Your task to perform on an android device: Go to privacy settings Image 0: 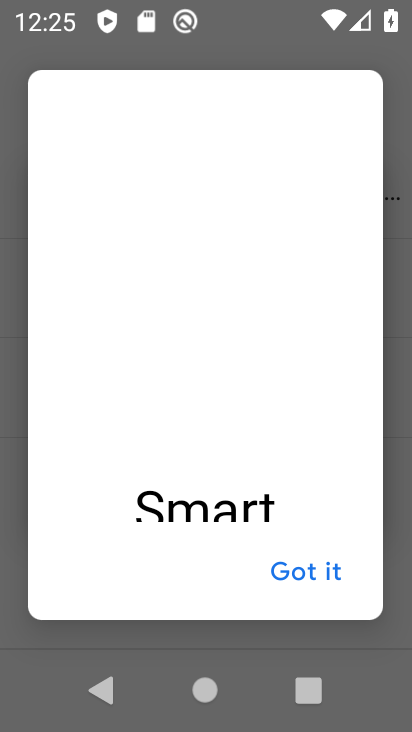
Step 0: click (303, 473)
Your task to perform on an android device: Go to privacy settings Image 1: 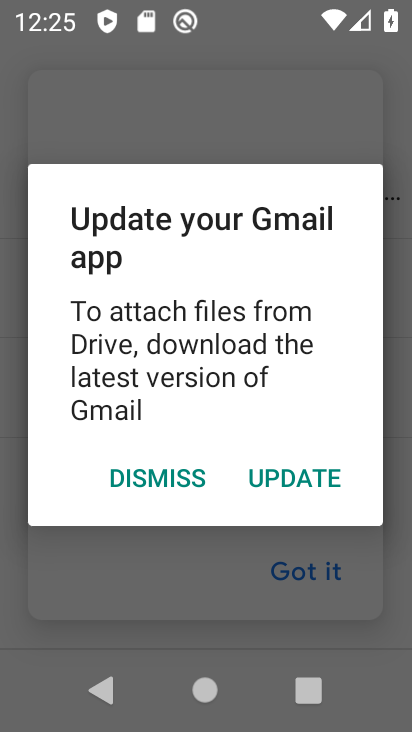
Step 1: press back button
Your task to perform on an android device: Go to privacy settings Image 2: 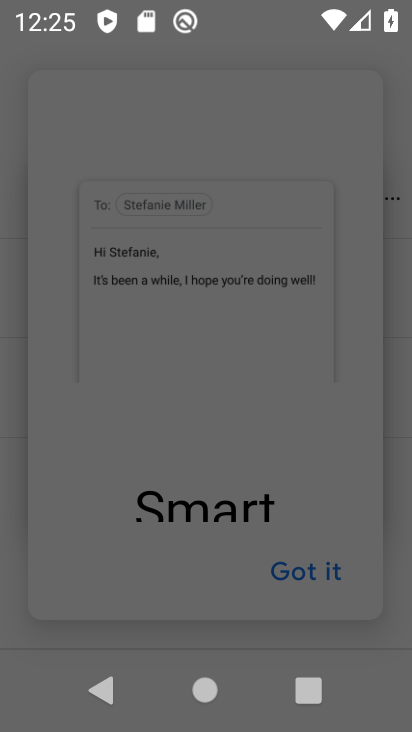
Step 2: click (300, 574)
Your task to perform on an android device: Go to privacy settings Image 3: 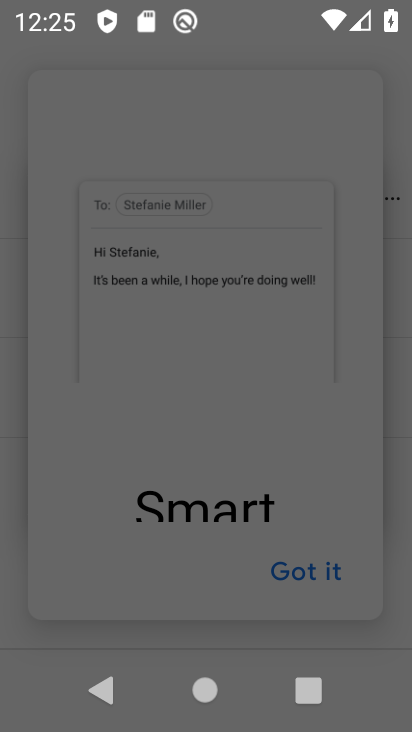
Step 3: click (300, 574)
Your task to perform on an android device: Go to privacy settings Image 4: 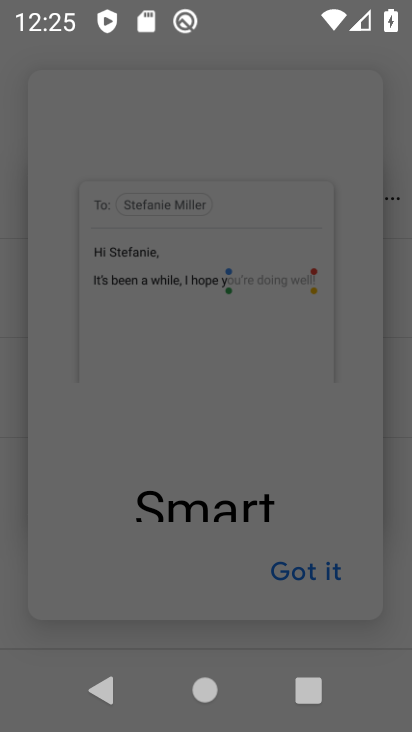
Step 4: press back button
Your task to perform on an android device: Go to privacy settings Image 5: 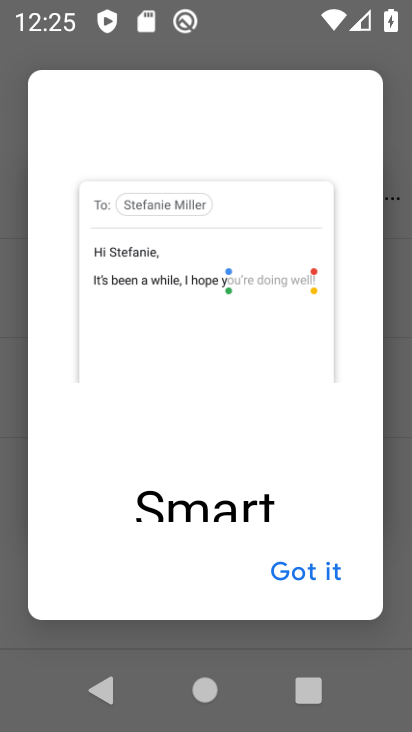
Step 5: press back button
Your task to perform on an android device: Go to privacy settings Image 6: 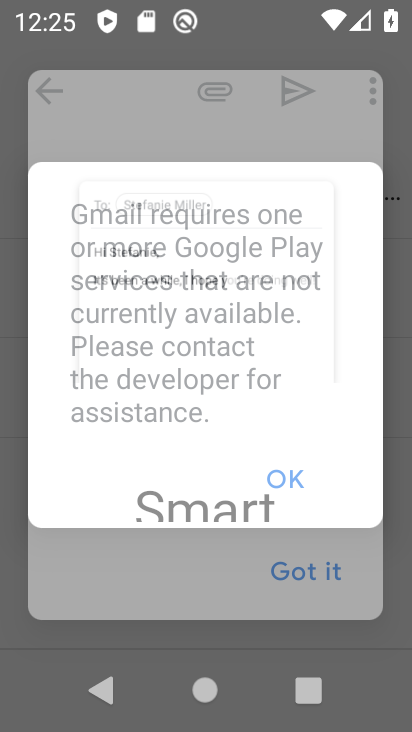
Step 6: press back button
Your task to perform on an android device: Go to privacy settings Image 7: 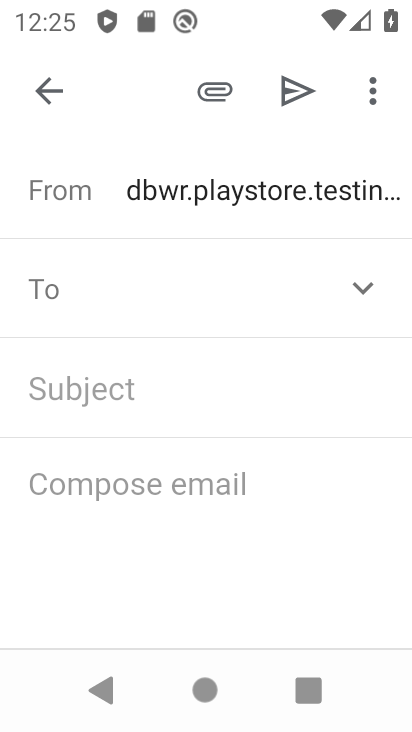
Step 7: click (50, 91)
Your task to perform on an android device: Go to privacy settings Image 8: 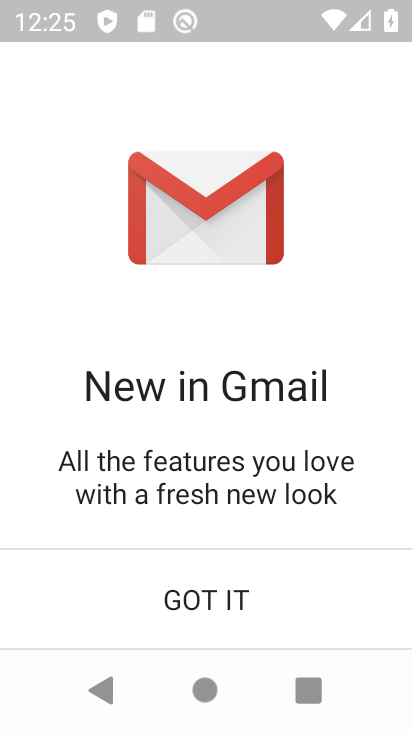
Step 8: click (212, 590)
Your task to perform on an android device: Go to privacy settings Image 9: 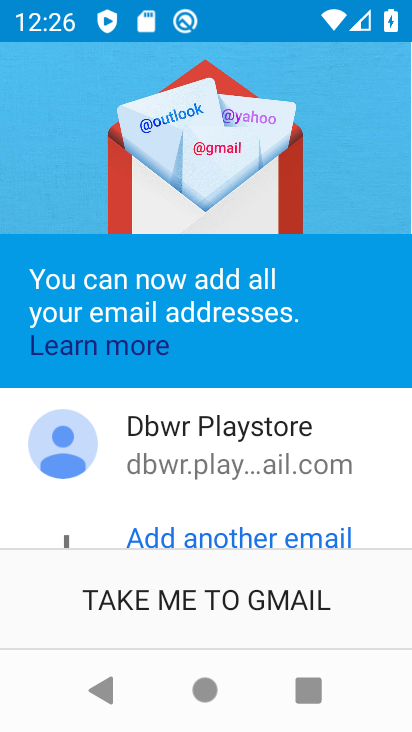
Step 9: click (220, 611)
Your task to perform on an android device: Go to privacy settings Image 10: 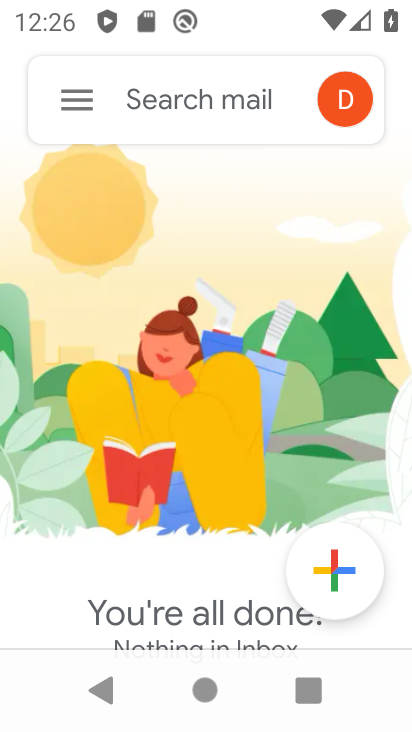
Step 10: press home button
Your task to perform on an android device: Go to privacy settings Image 11: 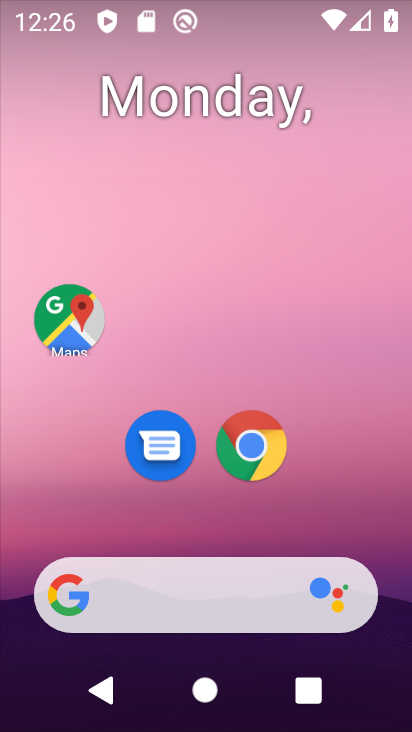
Step 11: drag from (382, 642) to (186, 51)
Your task to perform on an android device: Go to privacy settings Image 12: 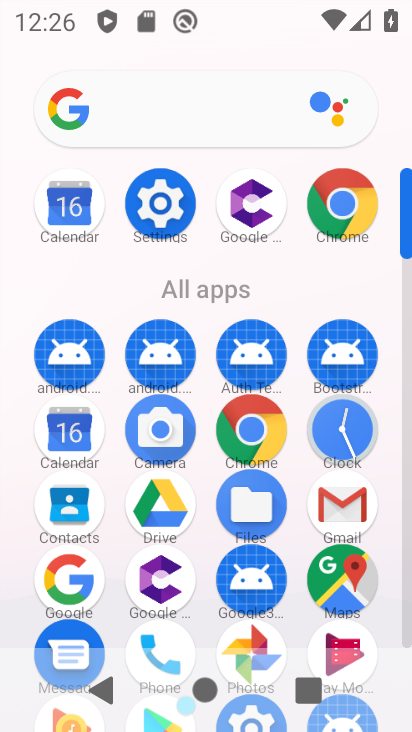
Step 12: click (151, 198)
Your task to perform on an android device: Go to privacy settings Image 13: 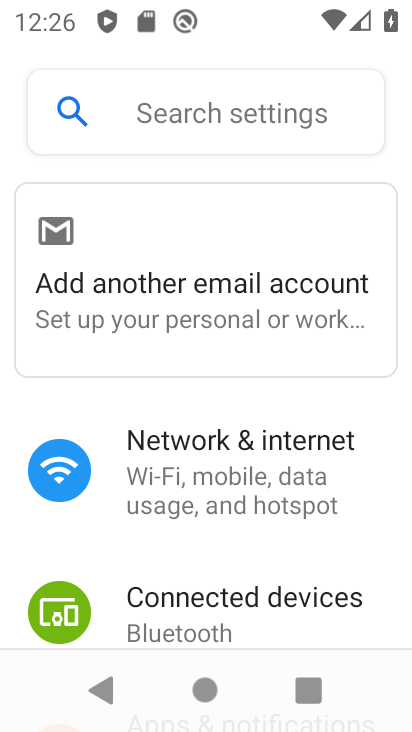
Step 13: drag from (159, 502) to (135, 208)
Your task to perform on an android device: Go to privacy settings Image 14: 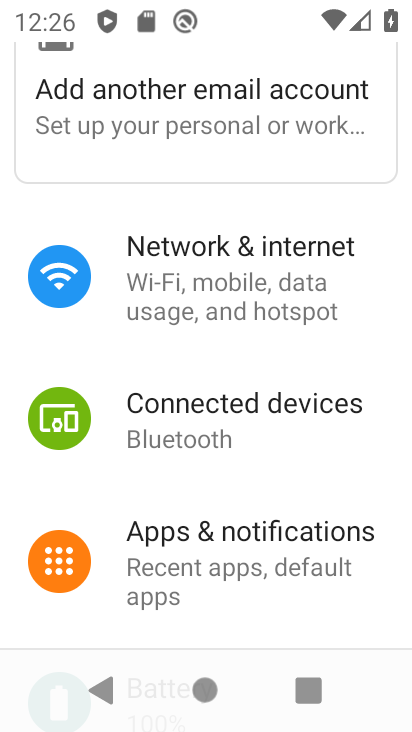
Step 14: drag from (155, 440) to (193, 123)
Your task to perform on an android device: Go to privacy settings Image 15: 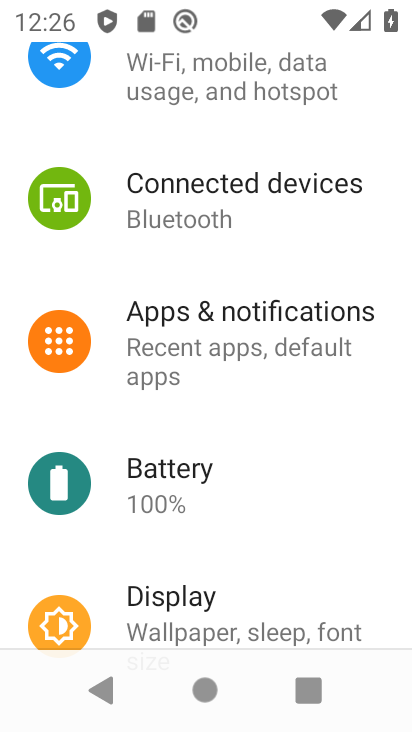
Step 15: drag from (232, 503) to (274, 143)
Your task to perform on an android device: Go to privacy settings Image 16: 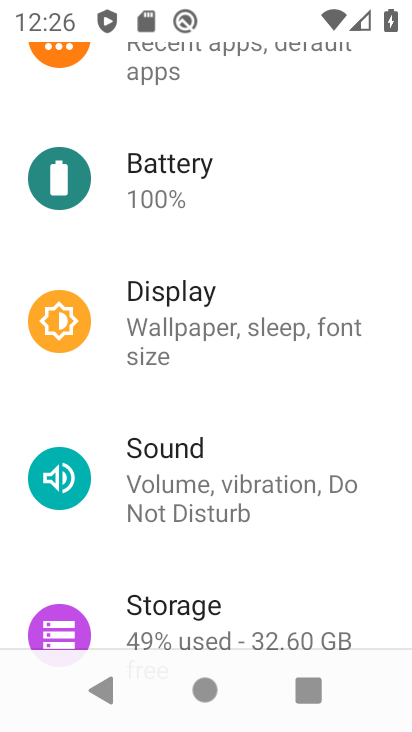
Step 16: drag from (216, 493) to (262, 169)
Your task to perform on an android device: Go to privacy settings Image 17: 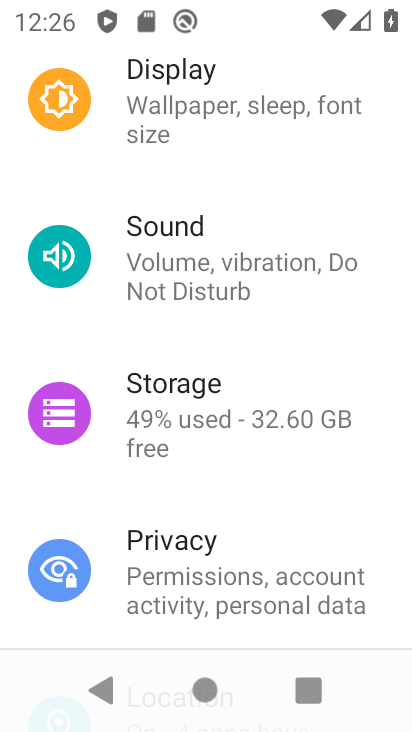
Step 17: click (159, 573)
Your task to perform on an android device: Go to privacy settings Image 18: 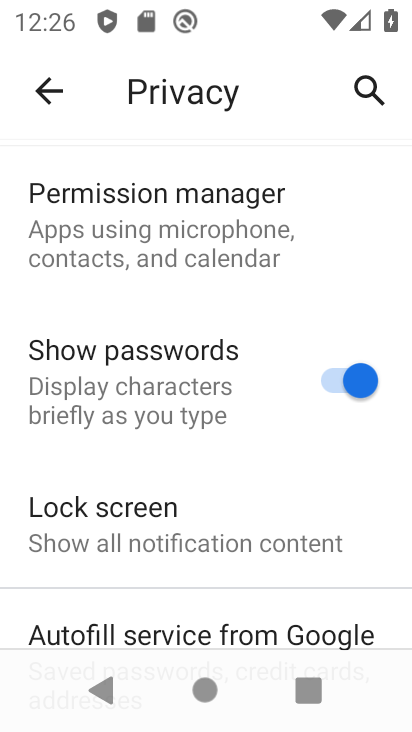
Step 18: task complete